Your task to perform on an android device: Is it going to rain today? Image 0: 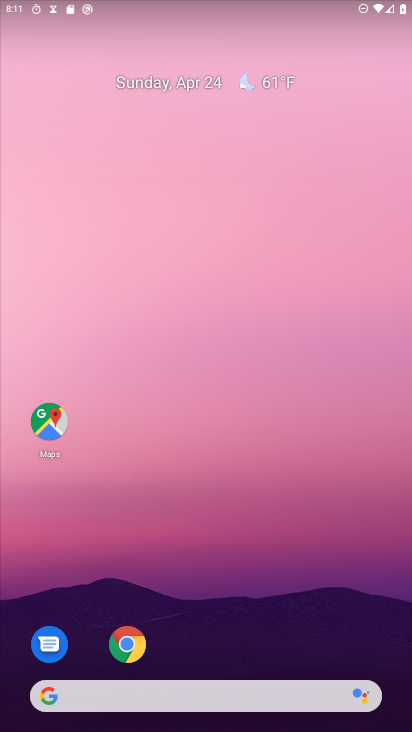
Step 0: drag from (236, 682) to (188, 248)
Your task to perform on an android device: Is it going to rain today? Image 1: 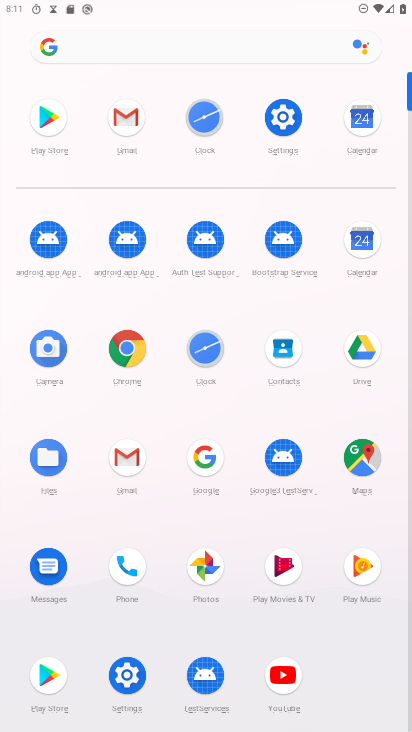
Step 1: press home button
Your task to perform on an android device: Is it going to rain today? Image 2: 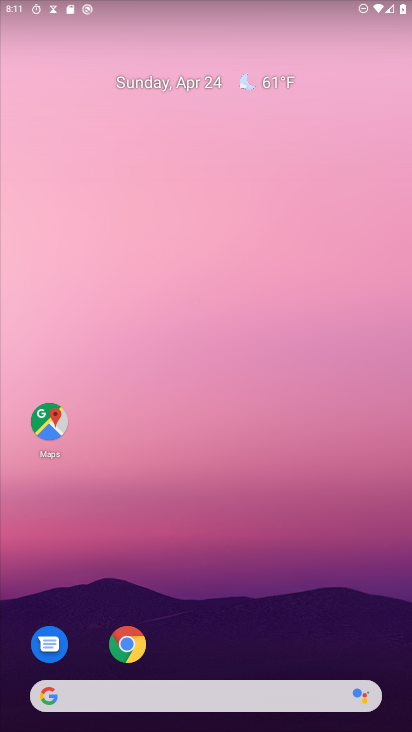
Step 2: click (267, 90)
Your task to perform on an android device: Is it going to rain today? Image 3: 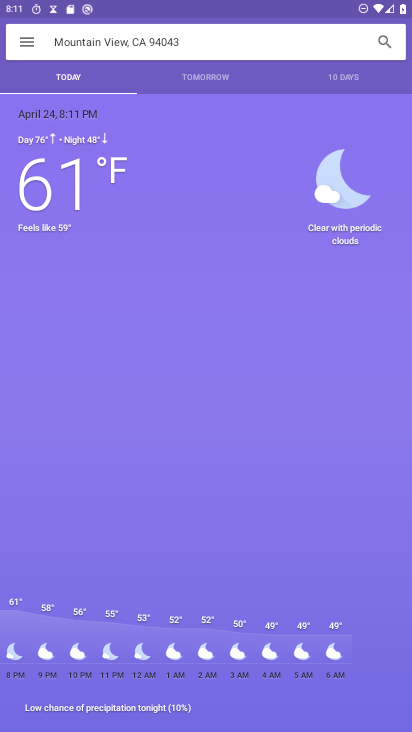
Step 3: task complete